Your task to perform on an android device: turn off data saver in the chrome app Image 0: 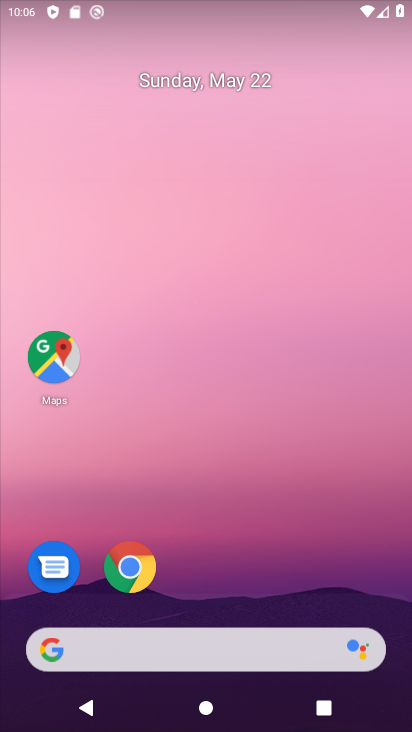
Step 0: click (130, 569)
Your task to perform on an android device: turn off data saver in the chrome app Image 1: 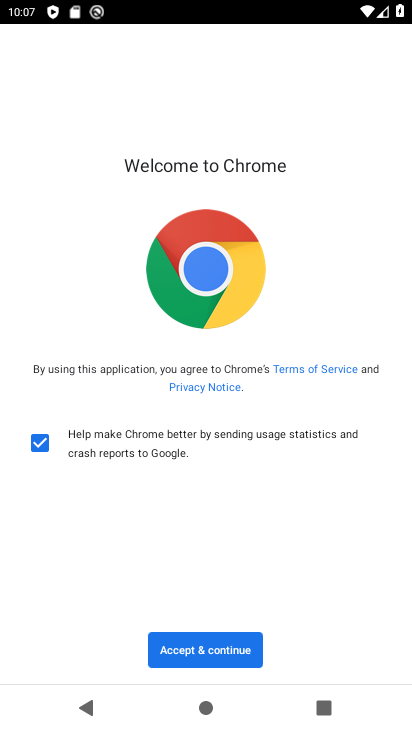
Step 1: click (197, 645)
Your task to perform on an android device: turn off data saver in the chrome app Image 2: 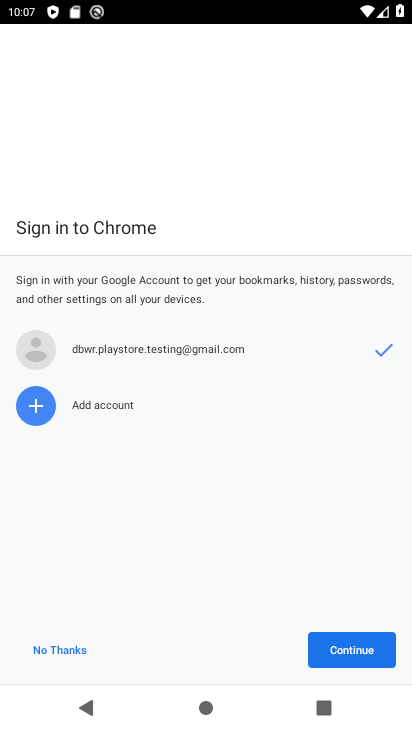
Step 2: click (357, 651)
Your task to perform on an android device: turn off data saver in the chrome app Image 3: 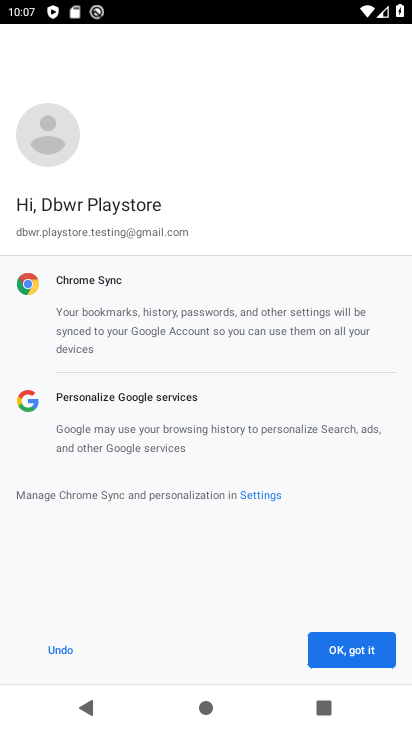
Step 3: click (357, 651)
Your task to perform on an android device: turn off data saver in the chrome app Image 4: 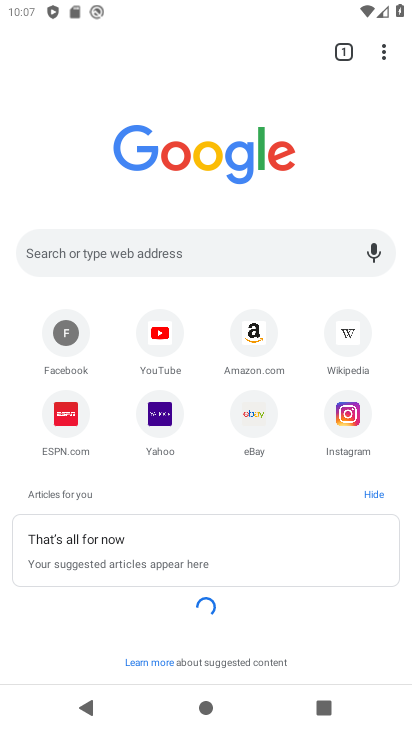
Step 4: click (380, 51)
Your task to perform on an android device: turn off data saver in the chrome app Image 5: 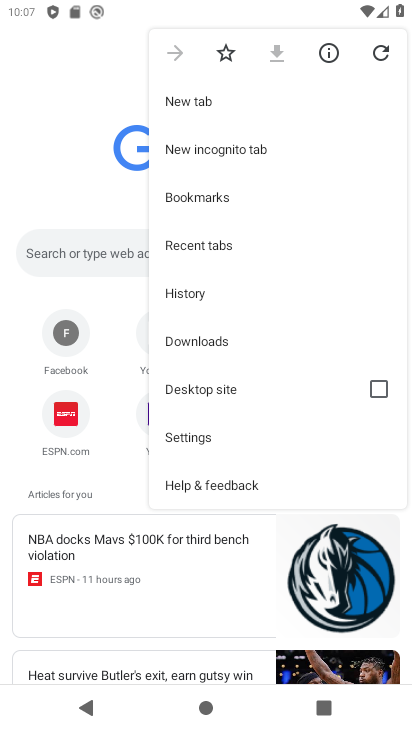
Step 5: click (187, 433)
Your task to perform on an android device: turn off data saver in the chrome app Image 6: 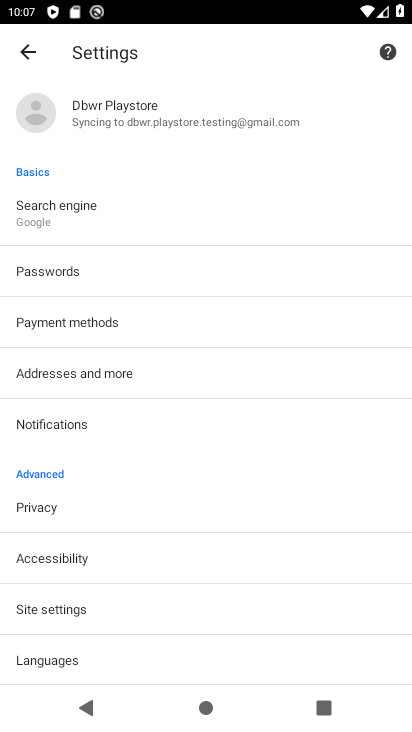
Step 6: drag from (171, 584) to (195, 209)
Your task to perform on an android device: turn off data saver in the chrome app Image 7: 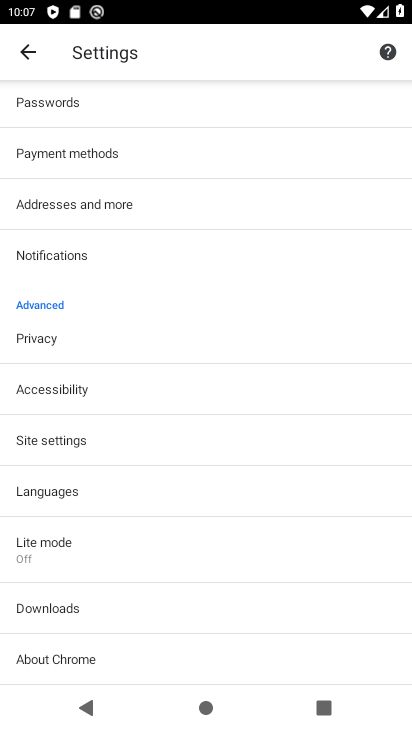
Step 7: click (34, 542)
Your task to perform on an android device: turn off data saver in the chrome app Image 8: 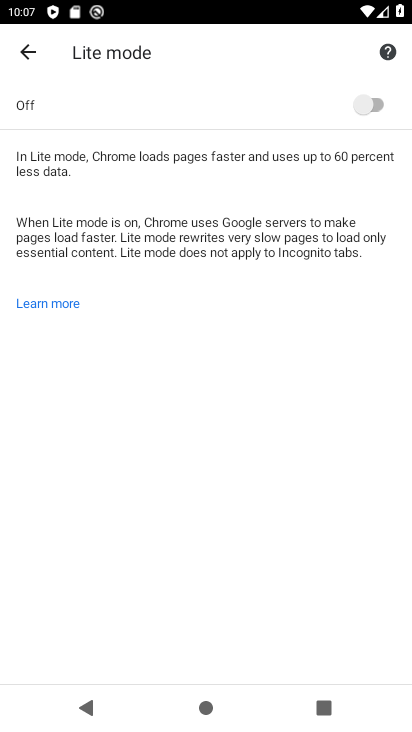
Step 8: task complete